Your task to perform on an android device: toggle wifi Image 0: 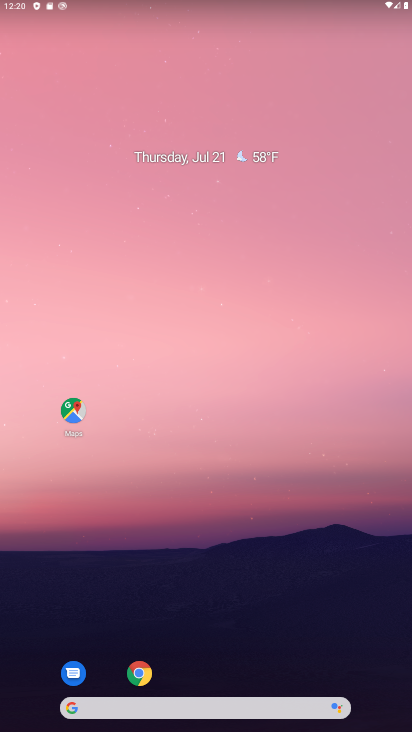
Step 0: drag from (212, 678) to (216, 194)
Your task to perform on an android device: toggle wifi Image 1: 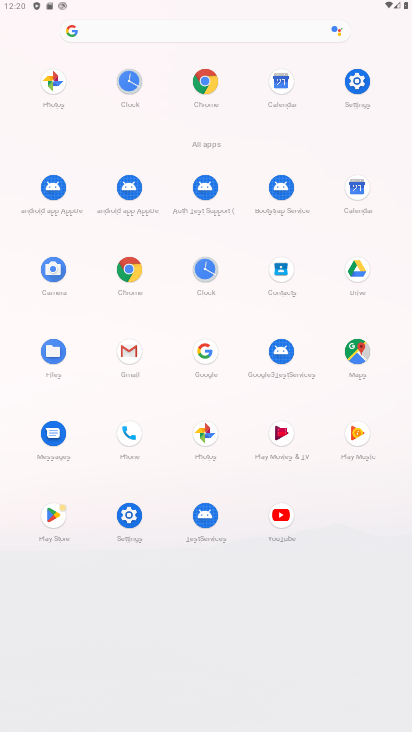
Step 1: click (353, 78)
Your task to perform on an android device: toggle wifi Image 2: 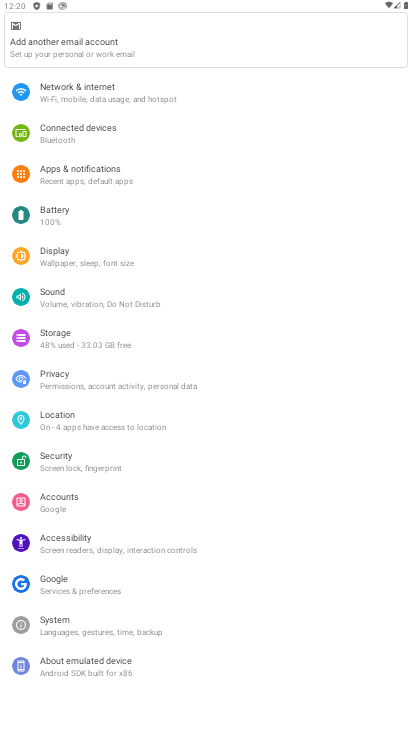
Step 2: click (107, 101)
Your task to perform on an android device: toggle wifi Image 3: 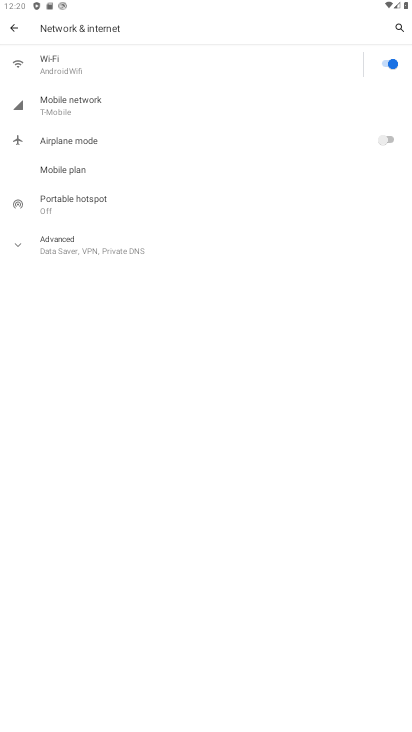
Step 3: click (99, 74)
Your task to perform on an android device: toggle wifi Image 4: 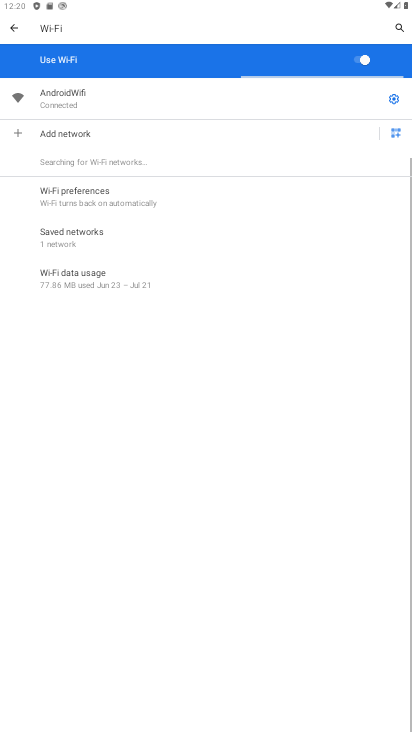
Step 4: click (357, 55)
Your task to perform on an android device: toggle wifi Image 5: 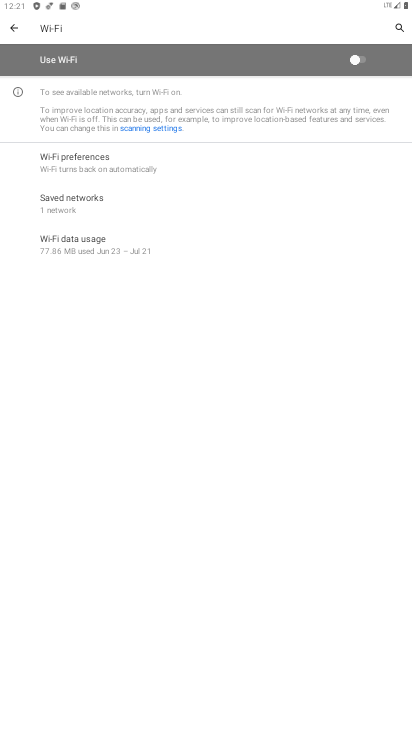
Step 5: task complete